Your task to perform on an android device: Go to sound settings Image 0: 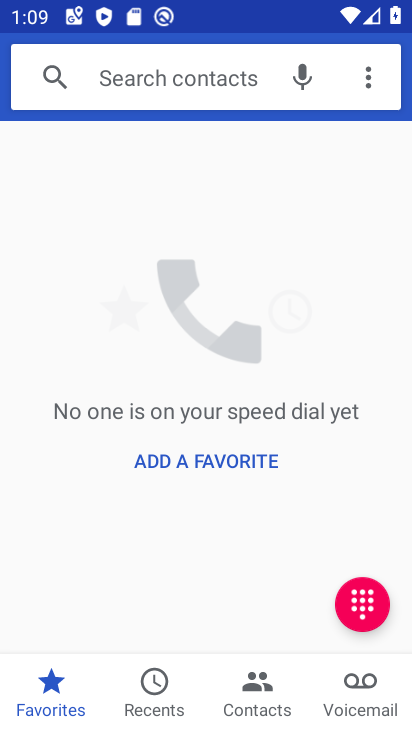
Step 0: press home button
Your task to perform on an android device: Go to sound settings Image 1: 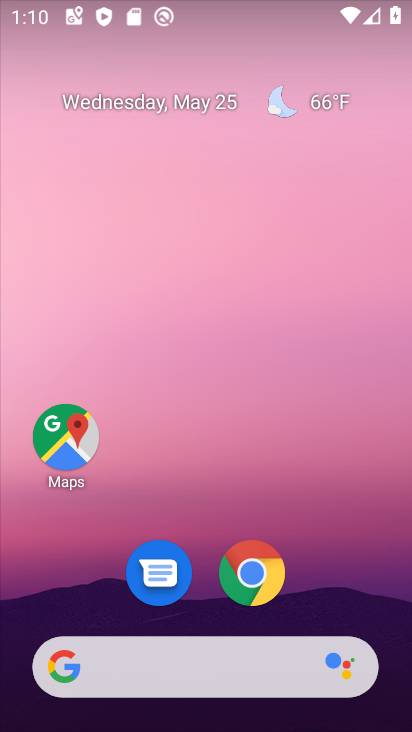
Step 1: drag from (372, 630) to (346, 13)
Your task to perform on an android device: Go to sound settings Image 2: 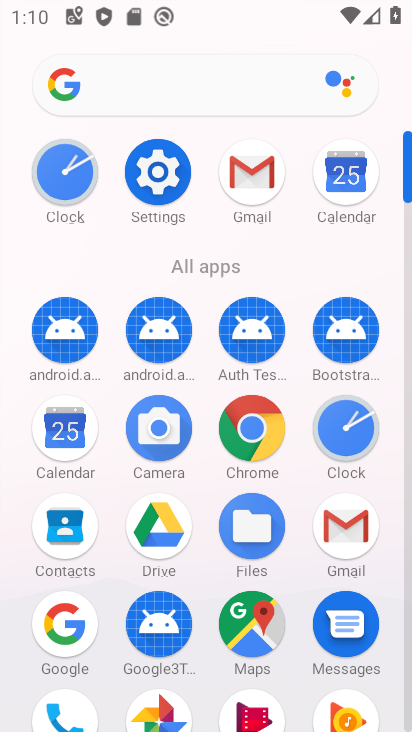
Step 2: click (404, 686)
Your task to perform on an android device: Go to sound settings Image 3: 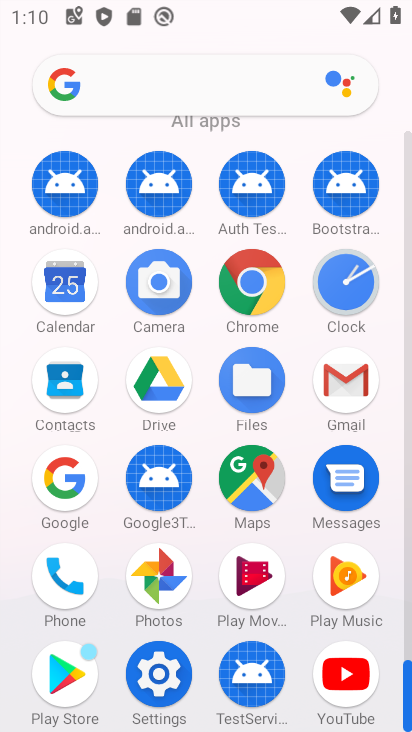
Step 3: click (157, 668)
Your task to perform on an android device: Go to sound settings Image 4: 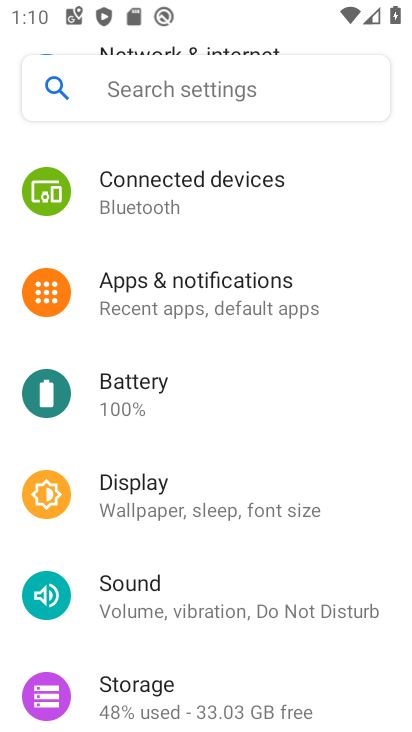
Step 4: click (130, 585)
Your task to perform on an android device: Go to sound settings Image 5: 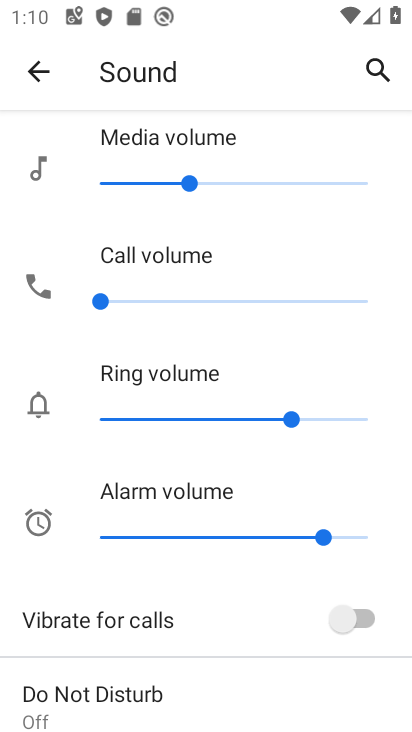
Step 5: drag from (235, 655) to (296, 181)
Your task to perform on an android device: Go to sound settings Image 6: 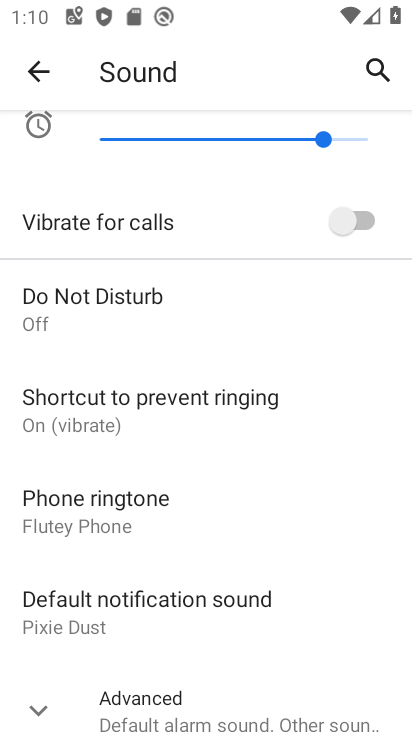
Step 6: click (44, 705)
Your task to perform on an android device: Go to sound settings Image 7: 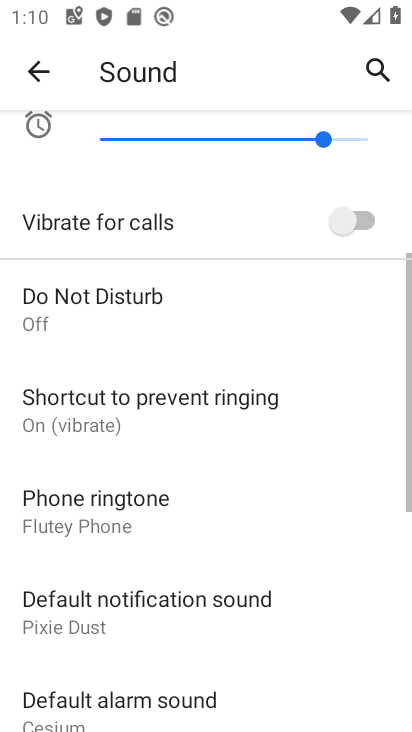
Step 7: task complete